Your task to perform on an android device: Go to Google maps Image 0: 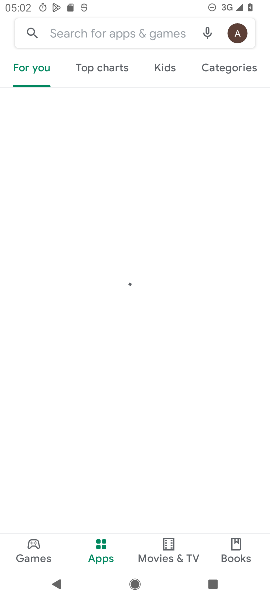
Step 0: press home button
Your task to perform on an android device: Go to Google maps Image 1: 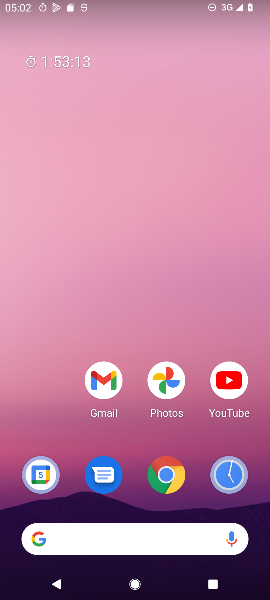
Step 1: drag from (60, 415) to (63, 158)
Your task to perform on an android device: Go to Google maps Image 2: 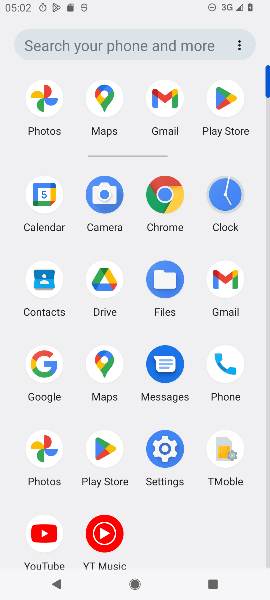
Step 2: click (99, 363)
Your task to perform on an android device: Go to Google maps Image 3: 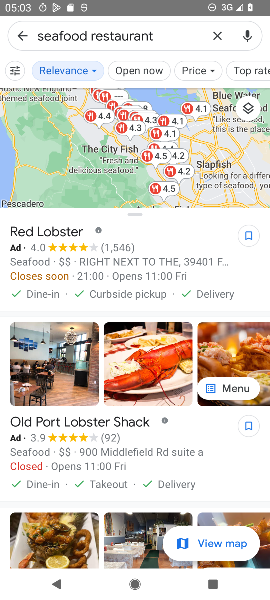
Step 3: task complete